Your task to perform on an android device: uninstall "Truecaller" Image 0: 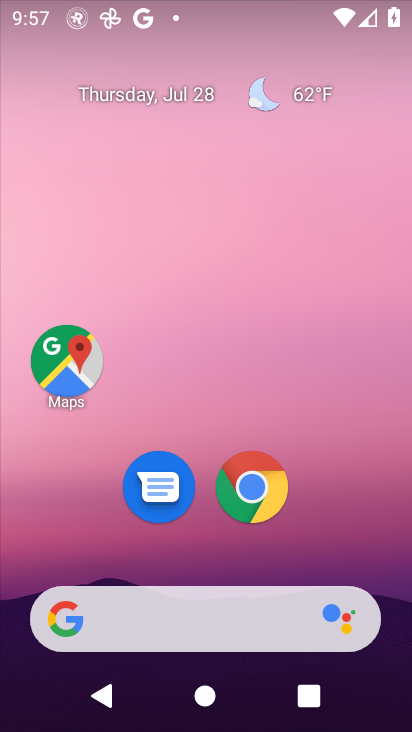
Step 0: drag from (232, 463) to (188, 168)
Your task to perform on an android device: uninstall "Truecaller" Image 1: 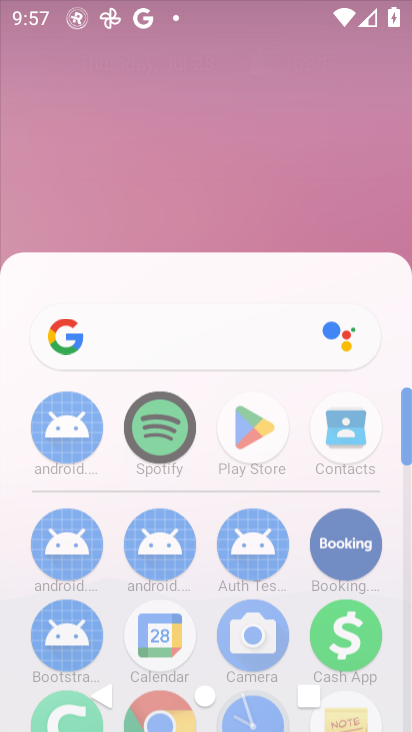
Step 1: click (214, 159)
Your task to perform on an android device: uninstall "Truecaller" Image 2: 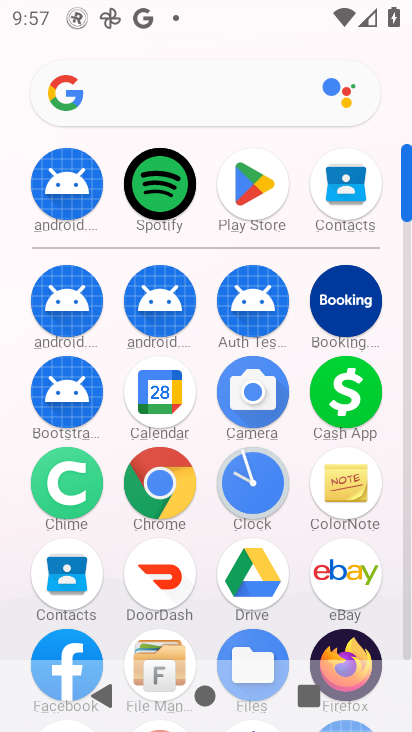
Step 2: click (248, 183)
Your task to perform on an android device: uninstall "Truecaller" Image 3: 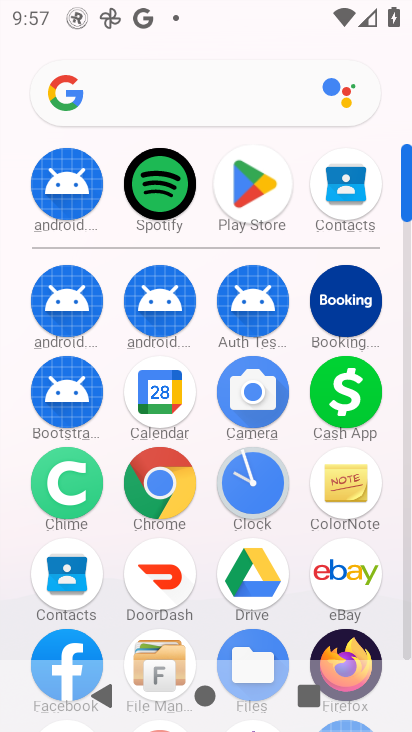
Step 3: click (249, 182)
Your task to perform on an android device: uninstall "Truecaller" Image 4: 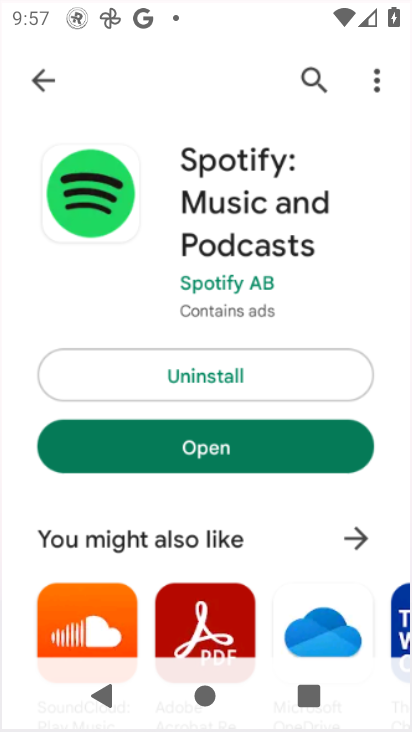
Step 4: click (250, 181)
Your task to perform on an android device: uninstall "Truecaller" Image 5: 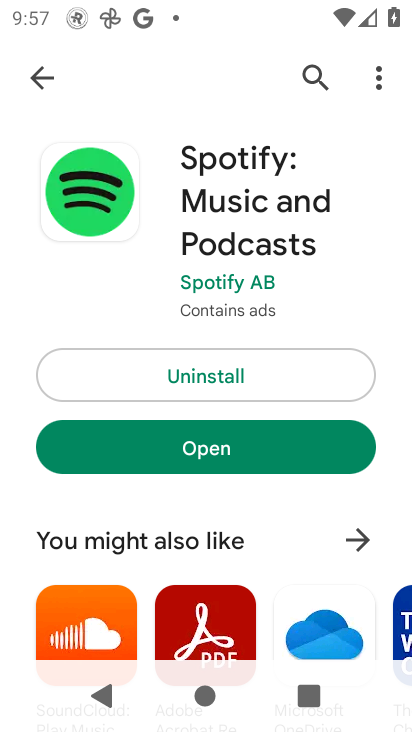
Step 5: click (250, 182)
Your task to perform on an android device: uninstall "Truecaller" Image 6: 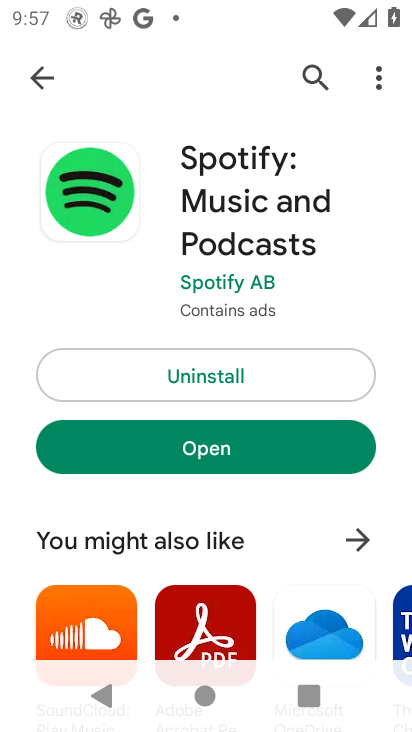
Step 6: click (37, 82)
Your task to perform on an android device: uninstall "Truecaller" Image 7: 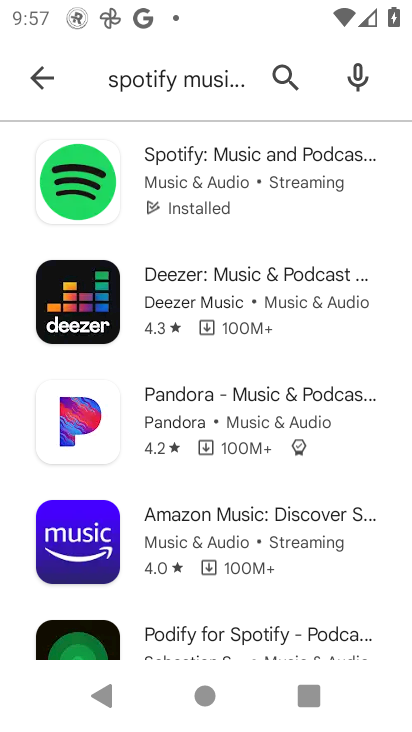
Step 7: click (38, 72)
Your task to perform on an android device: uninstall "Truecaller" Image 8: 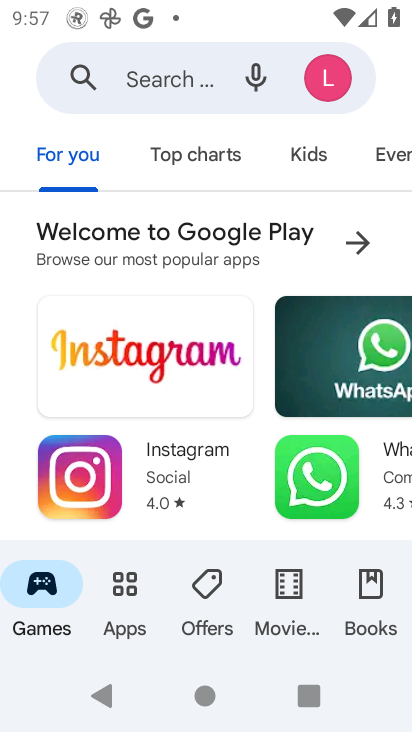
Step 8: click (137, 84)
Your task to perform on an android device: uninstall "Truecaller" Image 9: 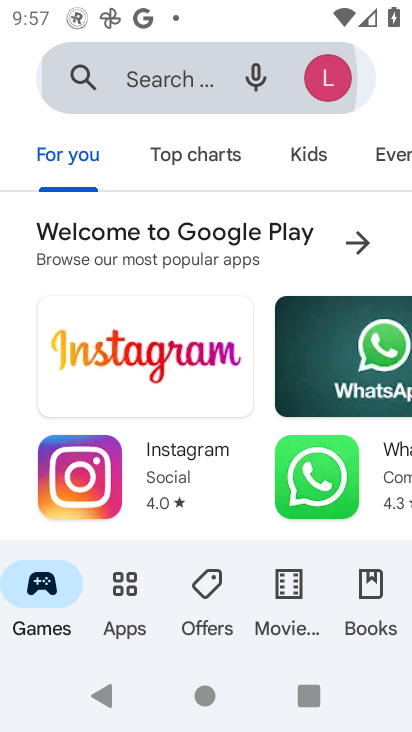
Step 9: click (144, 83)
Your task to perform on an android device: uninstall "Truecaller" Image 10: 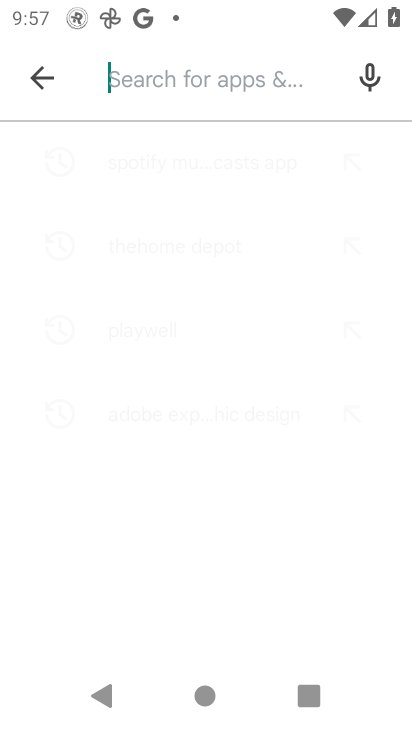
Step 10: click (144, 83)
Your task to perform on an android device: uninstall "Truecaller" Image 11: 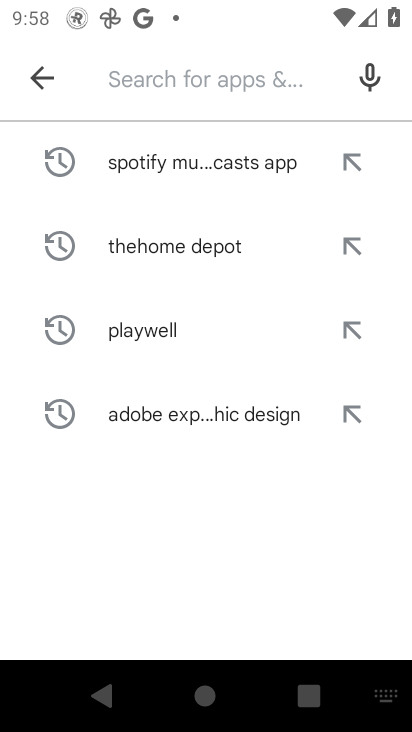
Step 11: type "trucaller"
Your task to perform on an android device: uninstall "Truecaller" Image 12: 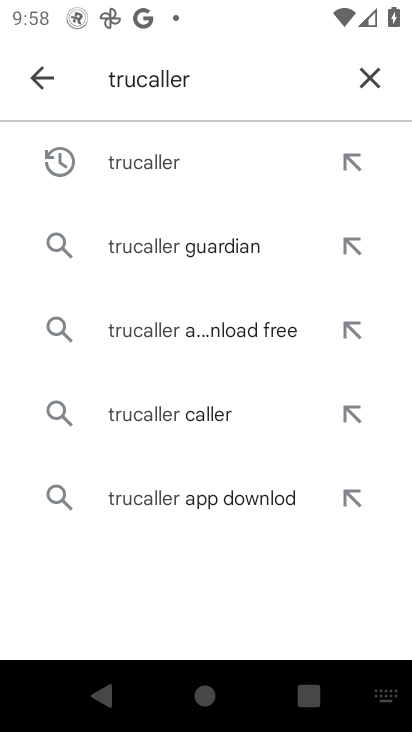
Step 12: click (144, 176)
Your task to perform on an android device: uninstall "Truecaller" Image 13: 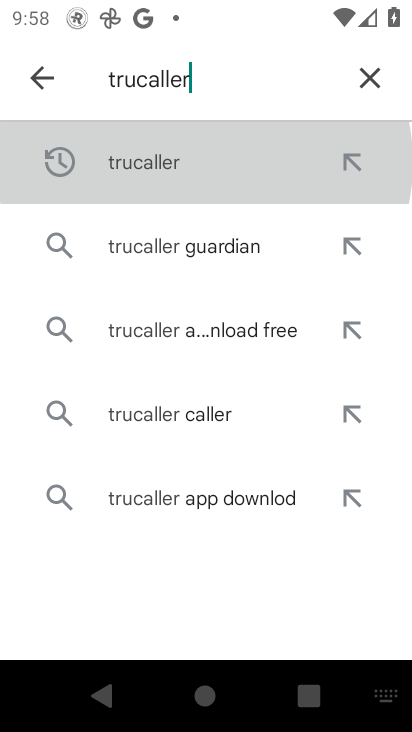
Step 13: click (140, 169)
Your task to perform on an android device: uninstall "Truecaller" Image 14: 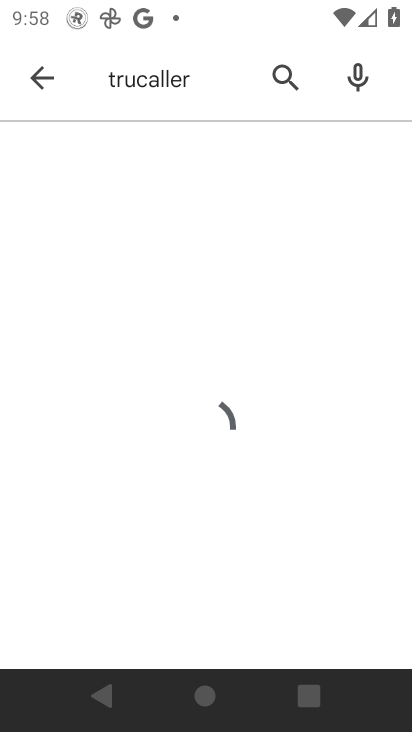
Step 14: click (140, 167)
Your task to perform on an android device: uninstall "Truecaller" Image 15: 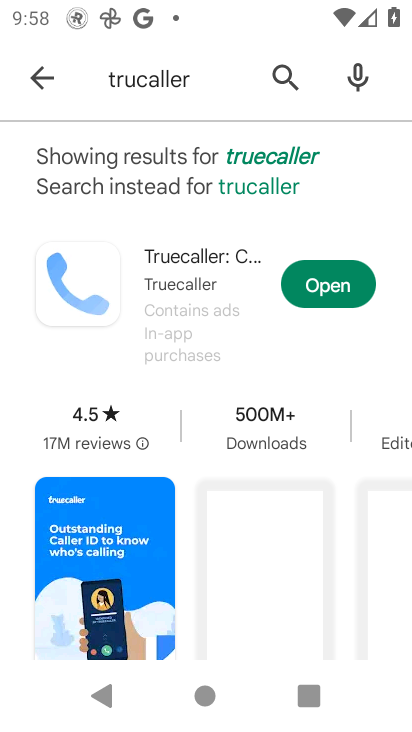
Step 15: click (140, 167)
Your task to perform on an android device: uninstall "Truecaller" Image 16: 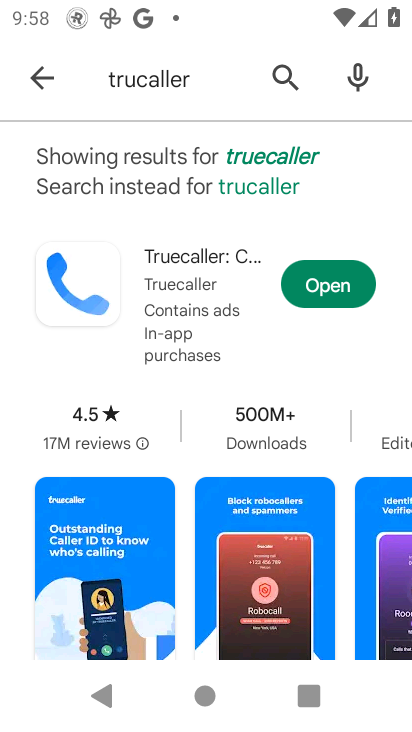
Step 16: click (332, 286)
Your task to perform on an android device: uninstall "Truecaller" Image 17: 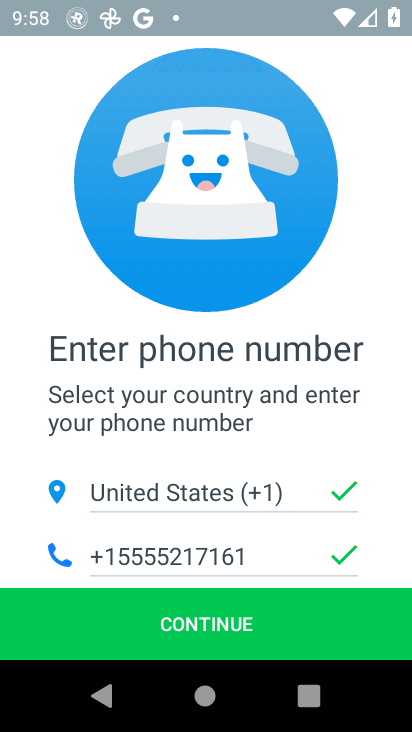
Step 17: click (195, 629)
Your task to perform on an android device: uninstall "Truecaller" Image 18: 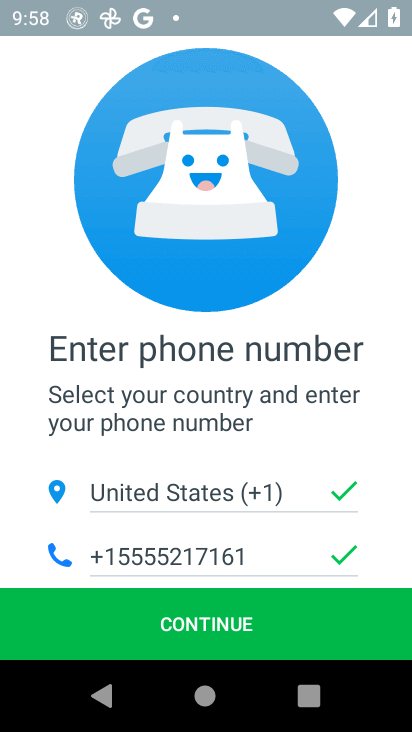
Step 18: click (194, 630)
Your task to perform on an android device: uninstall "Truecaller" Image 19: 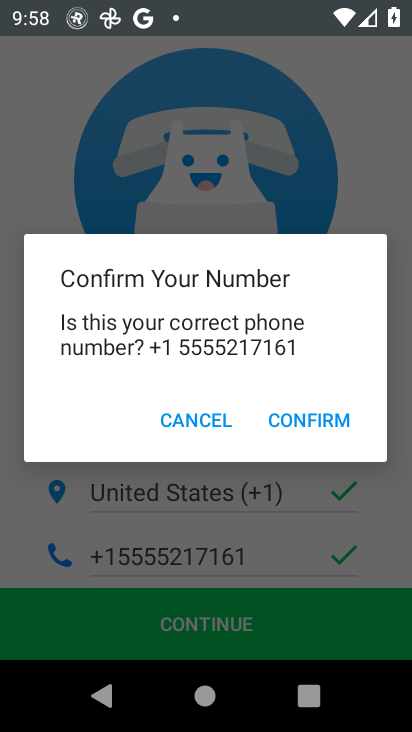
Step 19: click (295, 416)
Your task to perform on an android device: uninstall "Truecaller" Image 20: 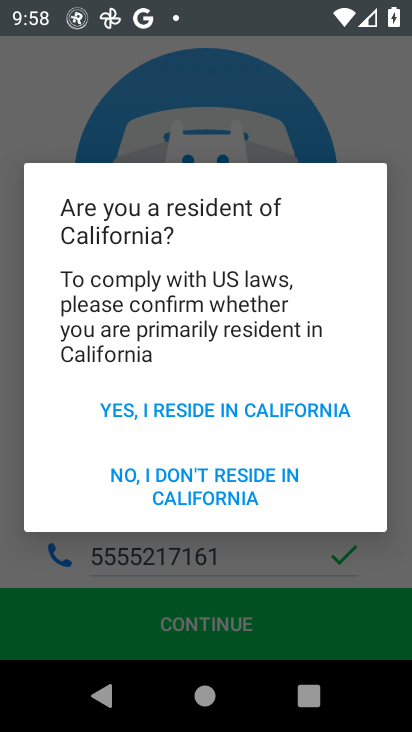
Step 20: click (206, 472)
Your task to perform on an android device: uninstall "Truecaller" Image 21: 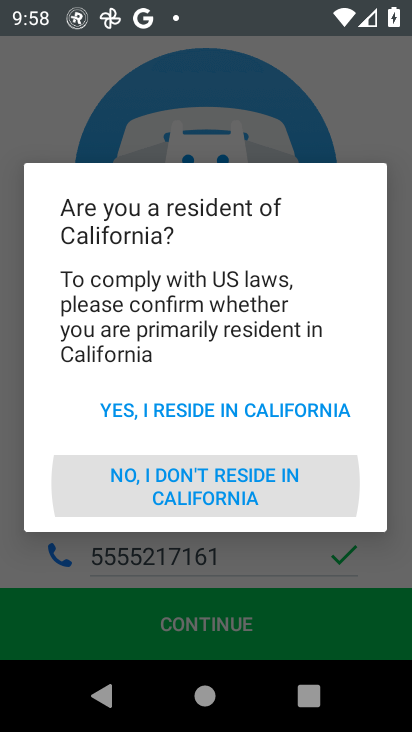
Step 21: click (206, 472)
Your task to perform on an android device: uninstall "Truecaller" Image 22: 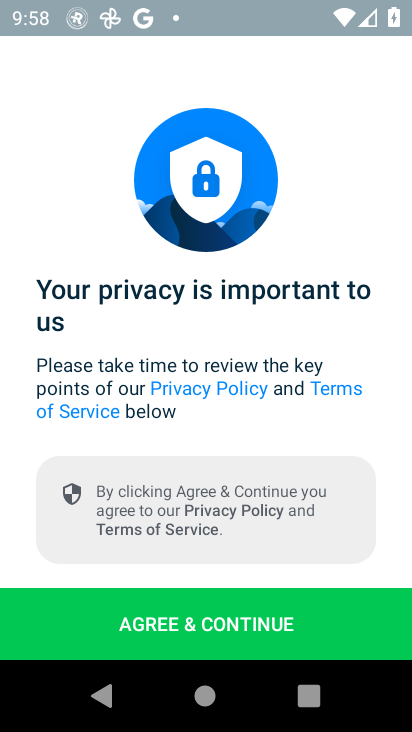
Step 22: click (225, 619)
Your task to perform on an android device: uninstall "Truecaller" Image 23: 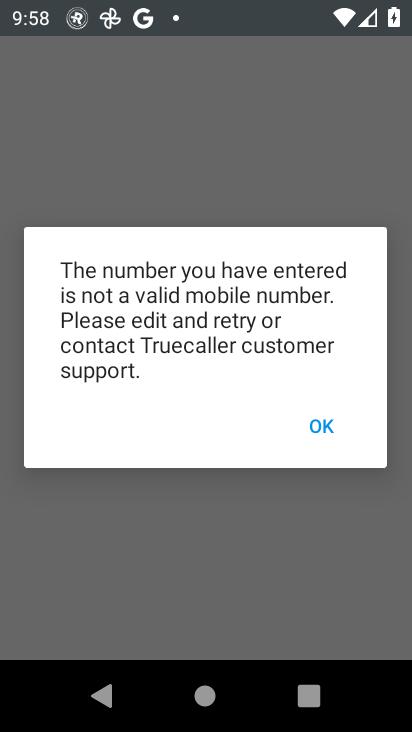
Step 23: click (318, 424)
Your task to perform on an android device: uninstall "Truecaller" Image 24: 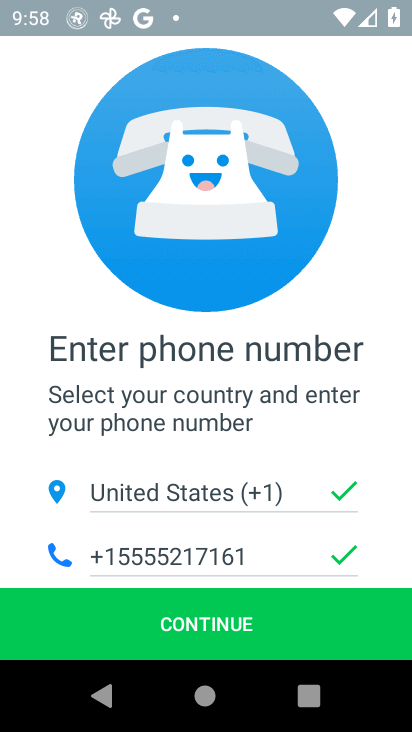
Step 24: task complete